Your task to perform on an android device: turn on location history Image 0: 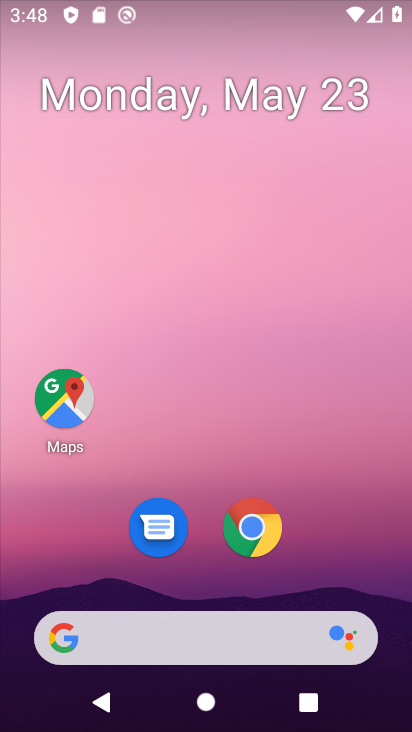
Step 0: click (44, 402)
Your task to perform on an android device: turn on location history Image 1: 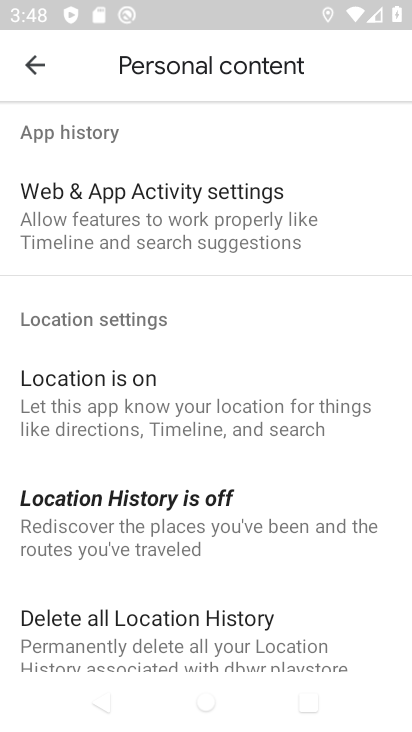
Step 1: click (96, 475)
Your task to perform on an android device: turn on location history Image 2: 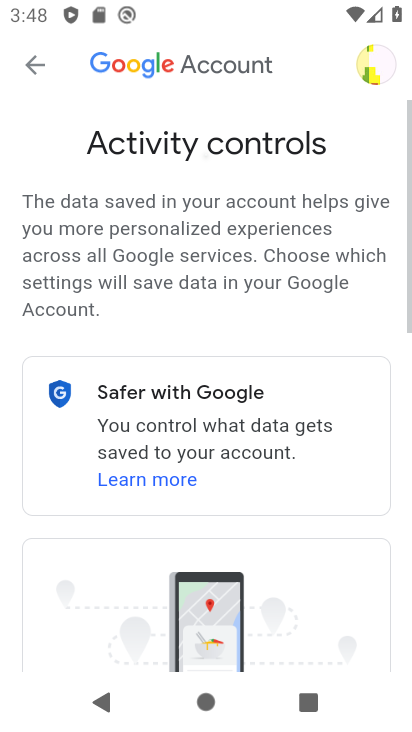
Step 2: task complete